Your task to perform on an android device: Open the map Image 0: 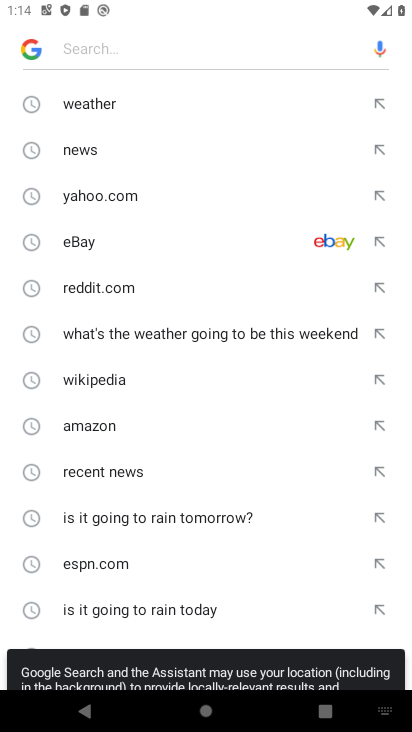
Step 0: press home button
Your task to perform on an android device: Open the map Image 1: 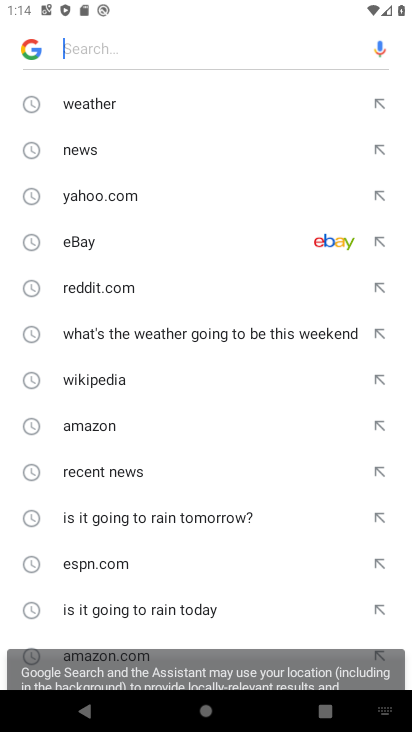
Step 1: press home button
Your task to perform on an android device: Open the map Image 2: 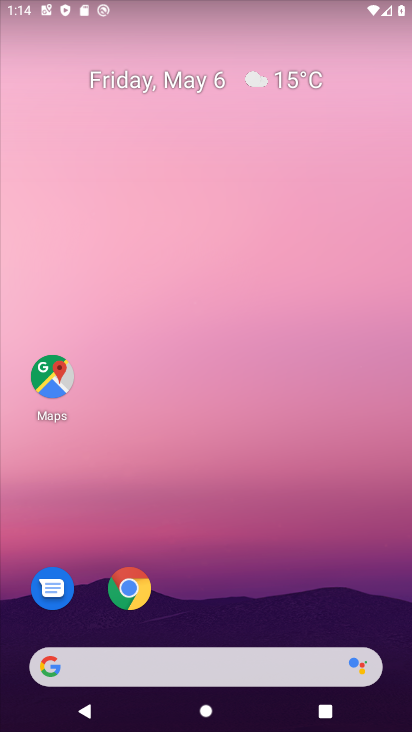
Step 2: click (47, 374)
Your task to perform on an android device: Open the map Image 3: 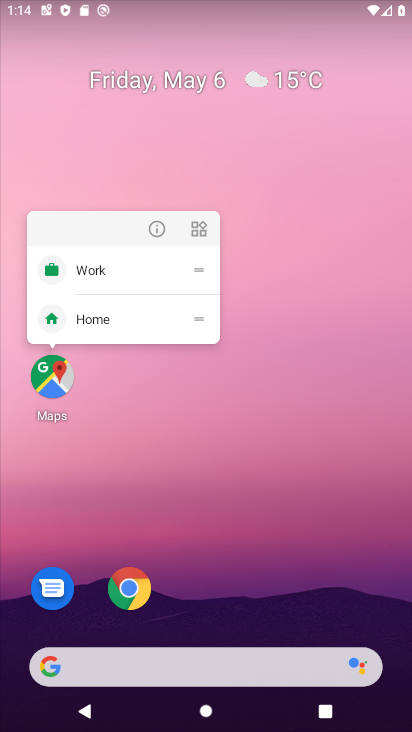
Step 3: click (155, 232)
Your task to perform on an android device: Open the map Image 4: 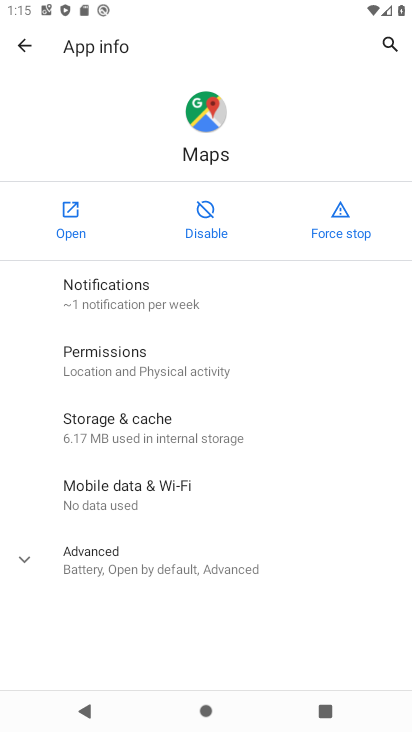
Step 4: click (82, 217)
Your task to perform on an android device: Open the map Image 5: 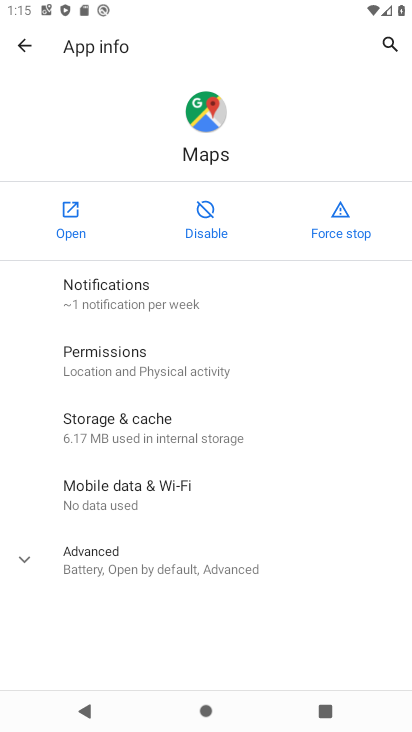
Step 5: click (88, 220)
Your task to perform on an android device: Open the map Image 6: 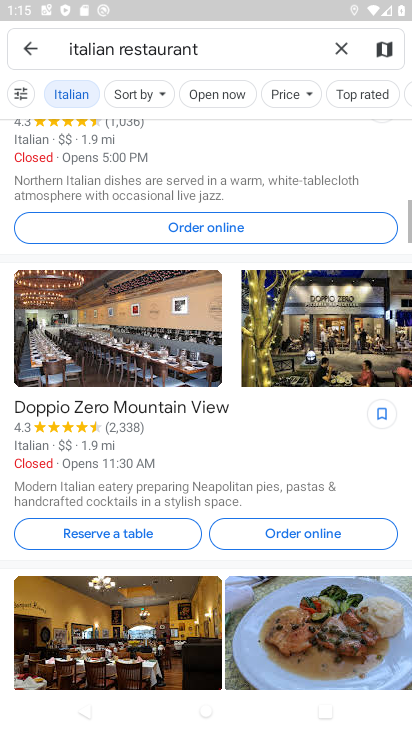
Step 6: click (42, 47)
Your task to perform on an android device: Open the map Image 7: 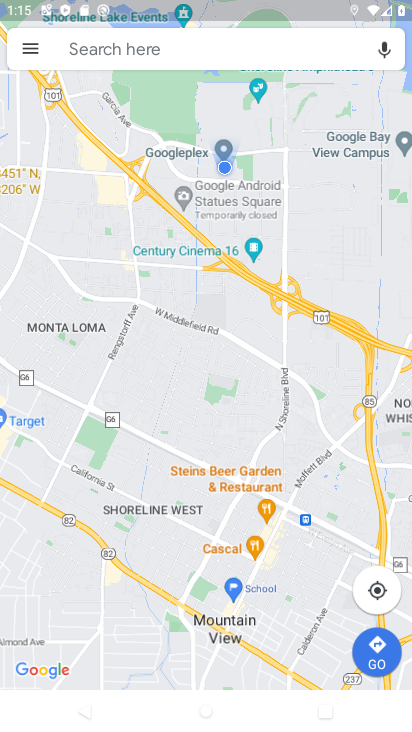
Step 7: drag from (236, 146) to (218, 468)
Your task to perform on an android device: Open the map Image 8: 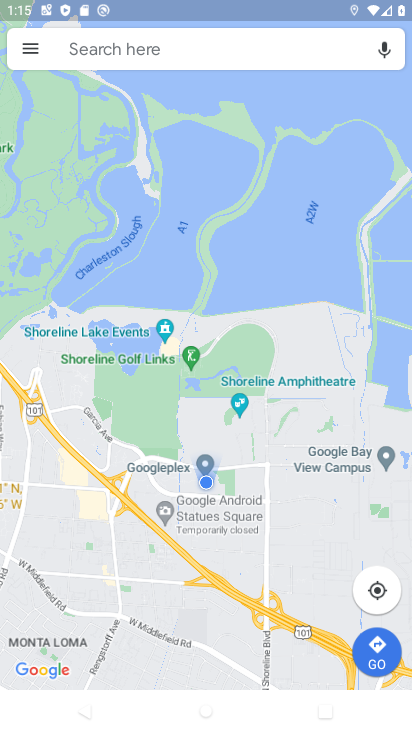
Step 8: drag from (300, 540) to (299, 107)
Your task to perform on an android device: Open the map Image 9: 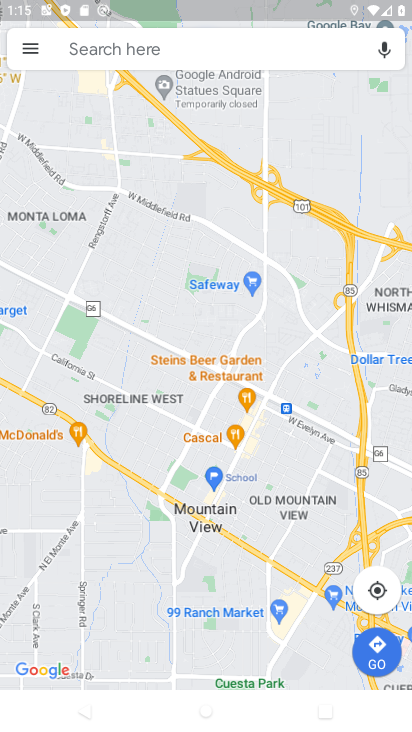
Step 9: drag from (258, 539) to (149, 103)
Your task to perform on an android device: Open the map Image 10: 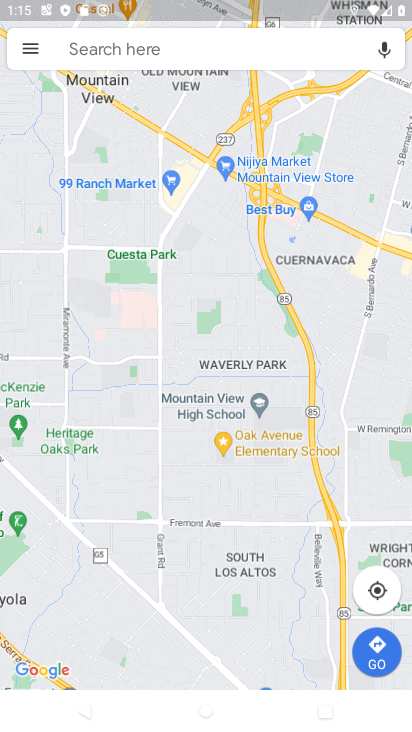
Step 10: drag from (329, 291) to (15, 290)
Your task to perform on an android device: Open the map Image 11: 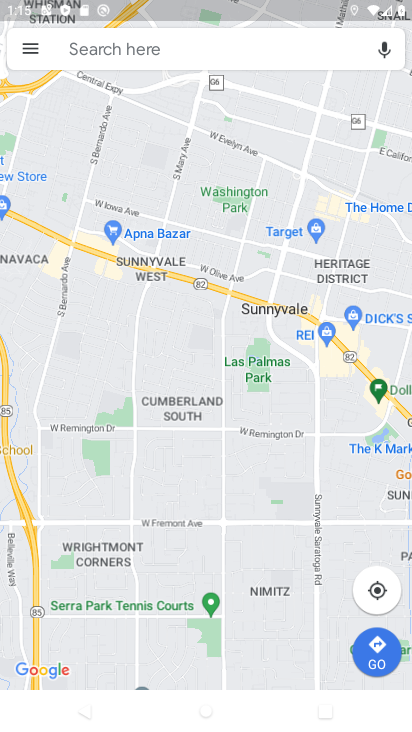
Step 11: click (85, 251)
Your task to perform on an android device: Open the map Image 12: 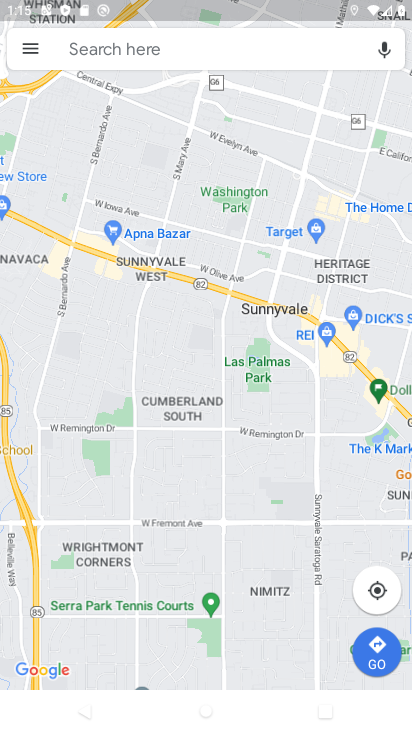
Step 12: click (80, 245)
Your task to perform on an android device: Open the map Image 13: 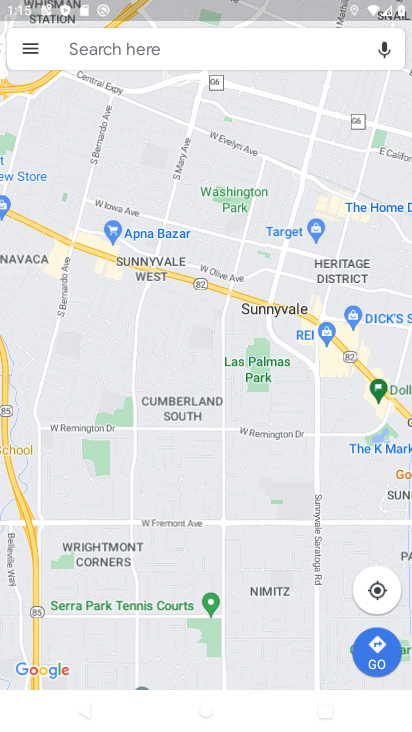
Step 13: click (80, 245)
Your task to perform on an android device: Open the map Image 14: 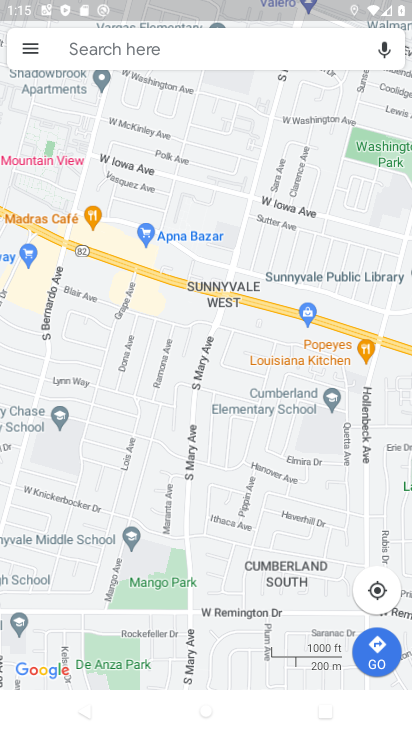
Step 14: click (71, 242)
Your task to perform on an android device: Open the map Image 15: 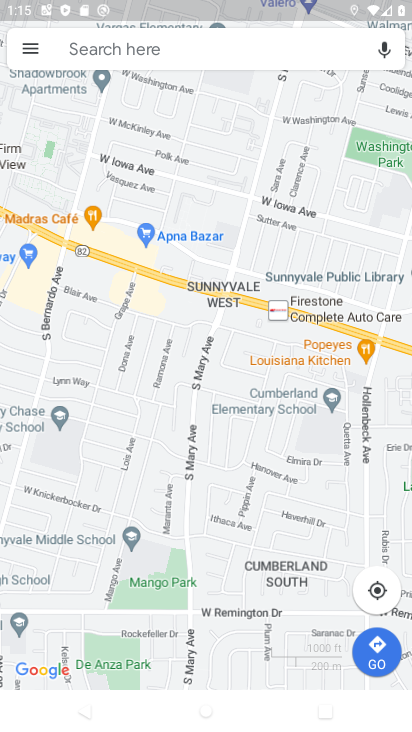
Step 15: click (127, 265)
Your task to perform on an android device: Open the map Image 16: 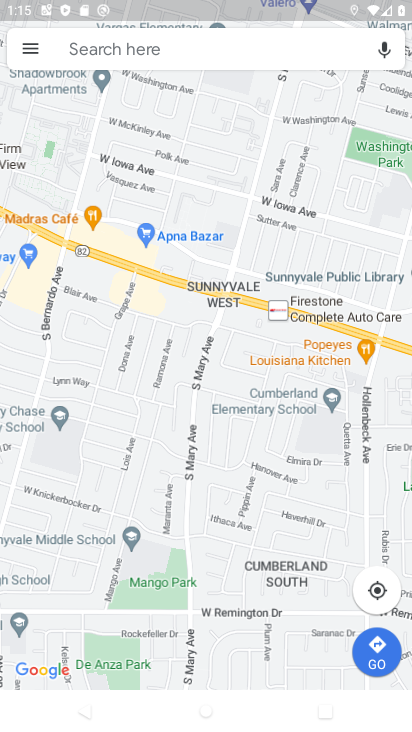
Step 16: click (138, 271)
Your task to perform on an android device: Open the map Image 17: 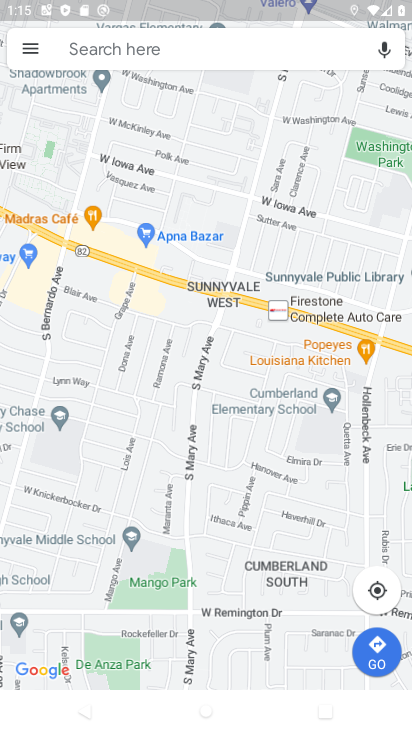
Step 17: task complete